Your task to perform on an android device: When is my next meeting? Image 0: 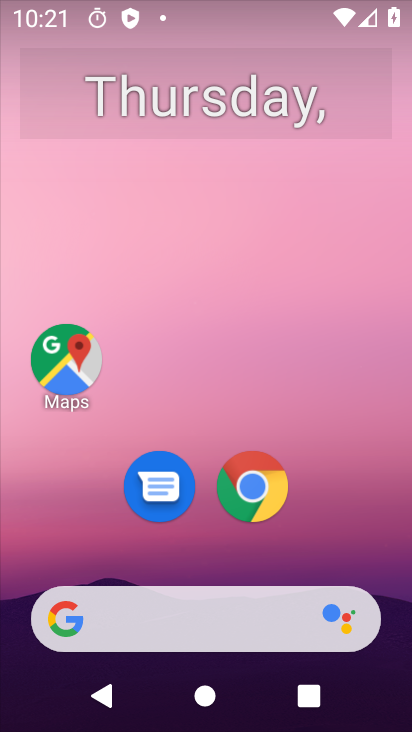
Step 0: click (362, 65)
Your task to perform on an android device: When is my next meeting? Image 1: 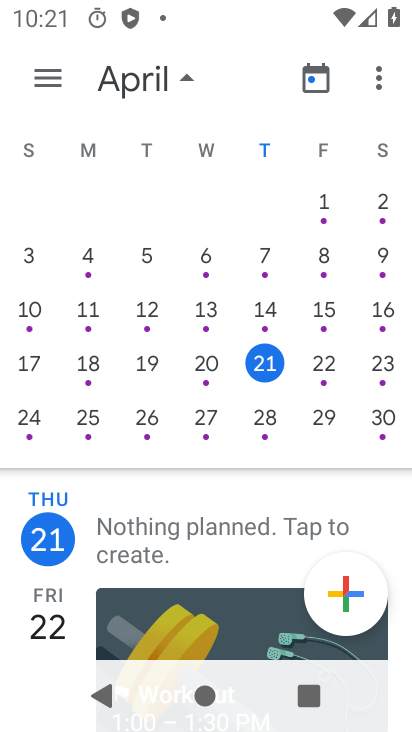
Step 1: press home button
Your task to perform on an android device: When is my next meeting? Image 2: 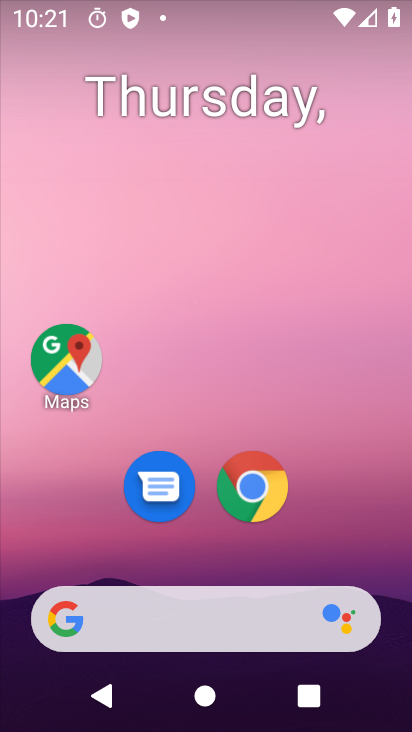
Step 2: drag from (397, 592) to (357, 186)
Your task to perform on an android device: When is my next meeting? Image 3: 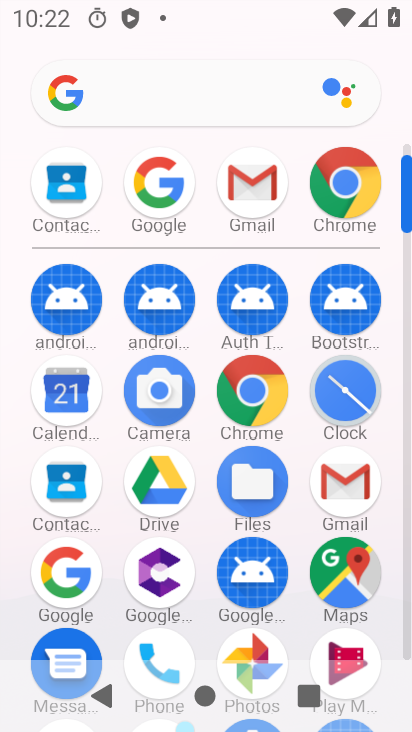
Step 3: click (59, 384)
Your task to perform on an android device: When is my next meeting? Image 4: 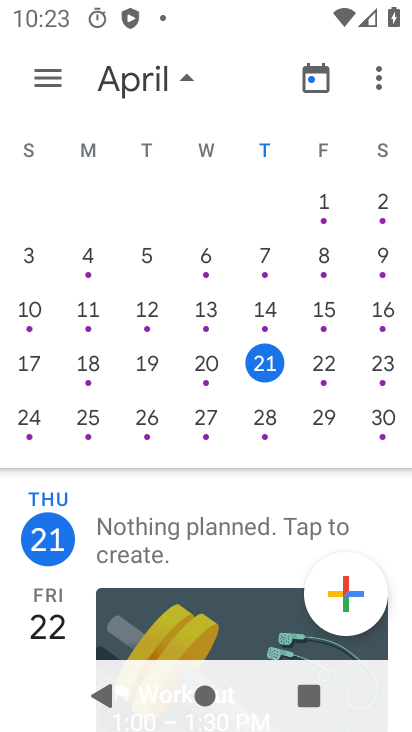
Step 4: click (185, 76)
Your task to perform on an android device: When is my next meeting? Image 5: 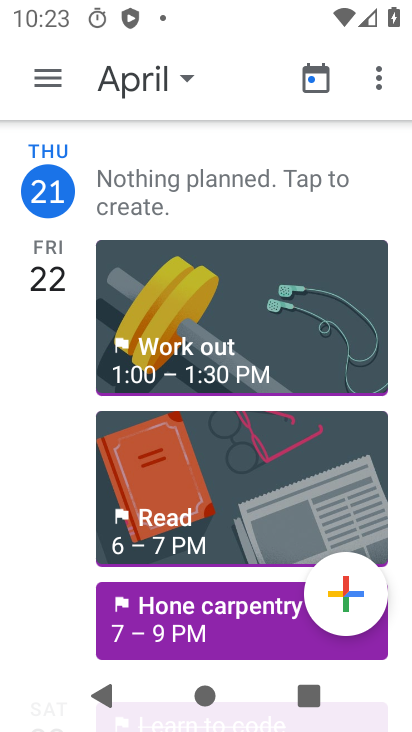
Step 5: click (185, 76)
Your task to perform on an android device: When is my next meeting? Image 6: 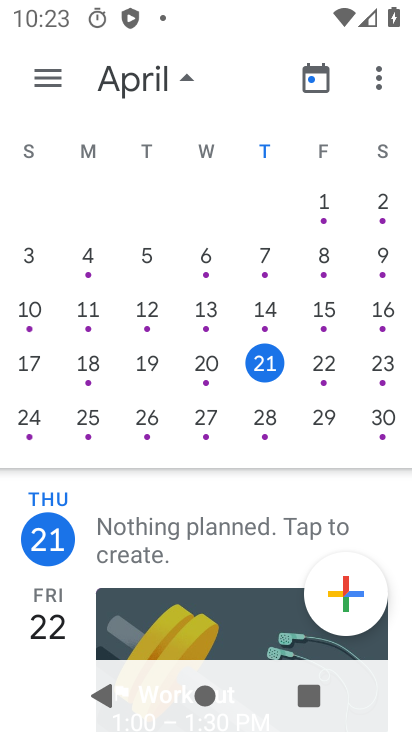
Step 6: click (42, 78)
Your task to perform on an android device: When is my next meeting? Image 7: 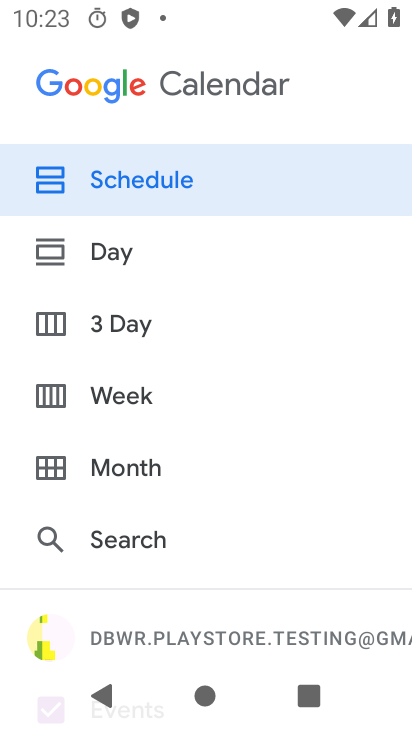
Step 7: click (100, 247)
Your task to perform on an android device: When is my next meeting? Image 8: 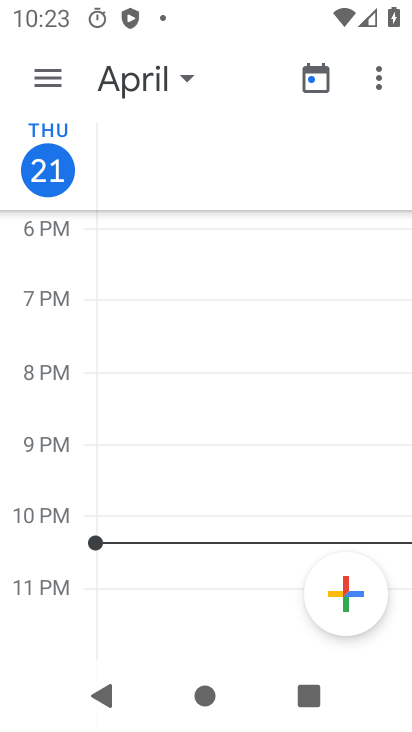
Step 8: task complete